Your task to perform on an android device: What's the weather going to be tomorrow? Image 0: 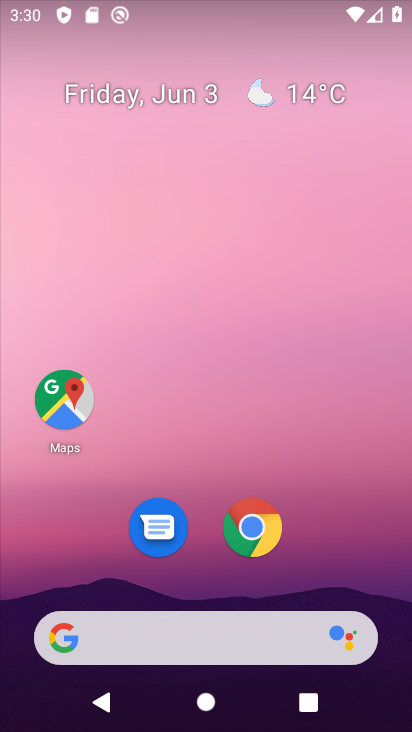
Step 0: drag from (339, 542) to (206, 10)
Your task to perform on an android device: What's the weather going to be tomorrow? Image 1: 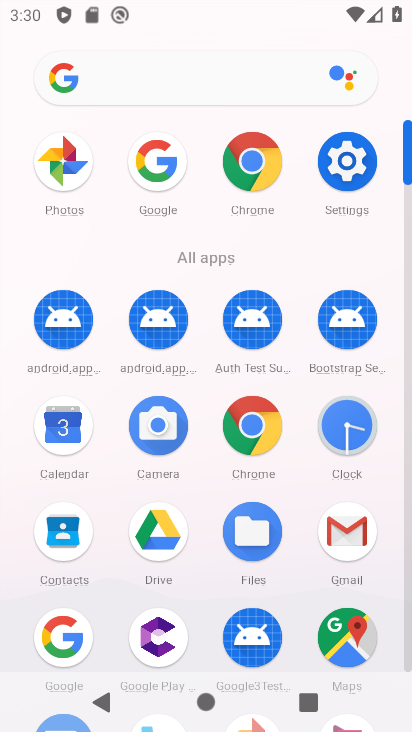
Step 1: click (153, 159)
Your task to perform on an android device: What's the weather going to be tomorrow? Image 2: 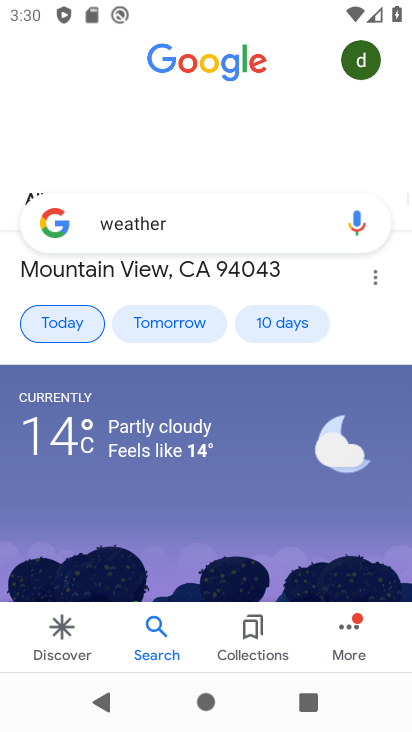
Step 2: click (157, 323)
Your task to perform on an android device: What's the weather going to be tomorrow? Image 3: 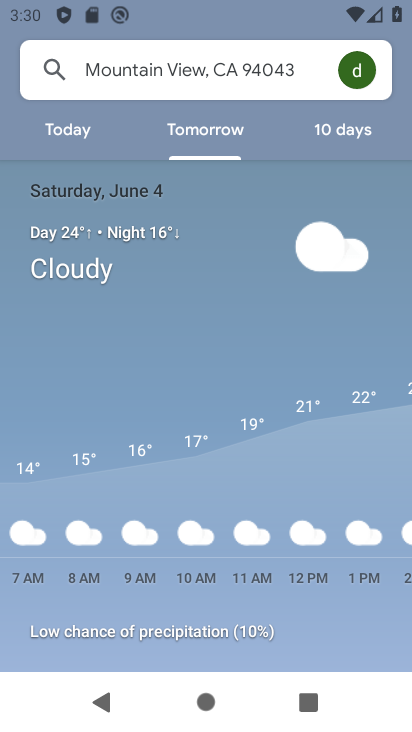
Step 3: task complete